Your task to perform on an android device: find photos in the google photos app Image 0: 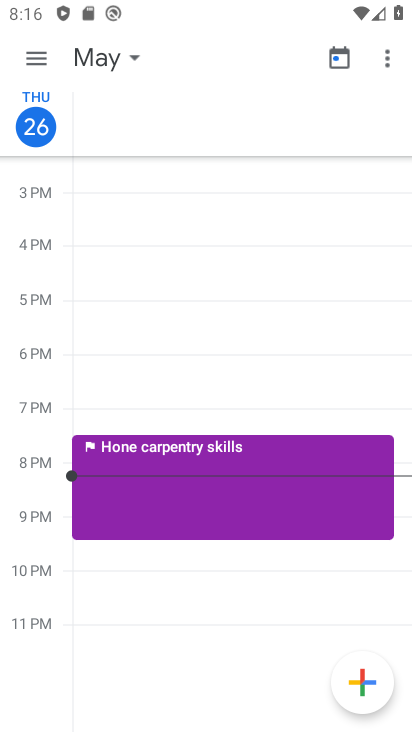
Step 0: press home button
Your task to perform on an android device: find photos in the google photos app Image 1: 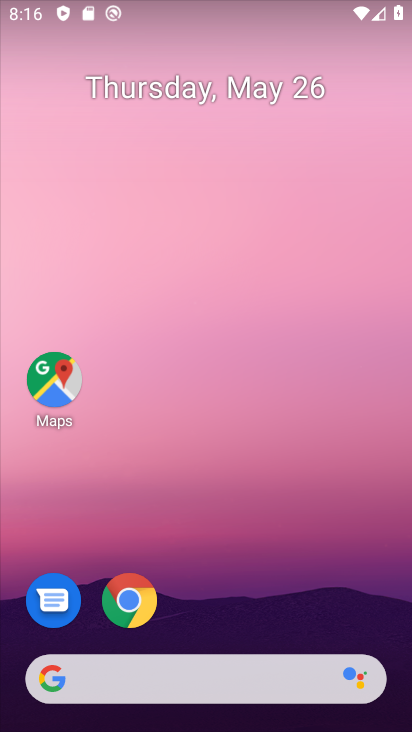
Step 1: drag from (202, 612) to (238, 31)
Your task to perform on an android device: find photos in the google photos app Image 2: 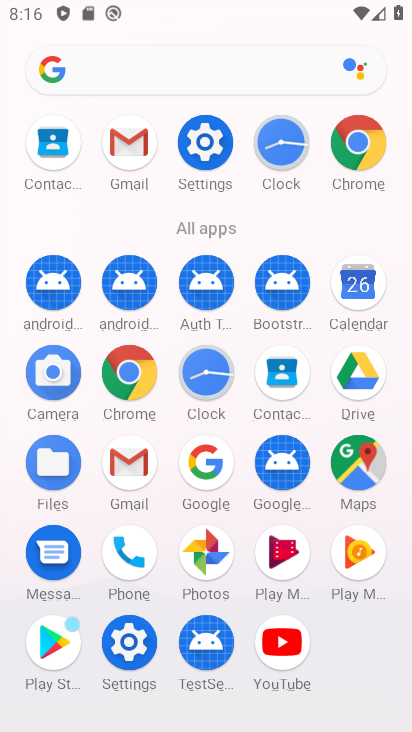
Step 2: click (221, 530)
Your task to perform on an android device: find photos in the google photos app Image 3: 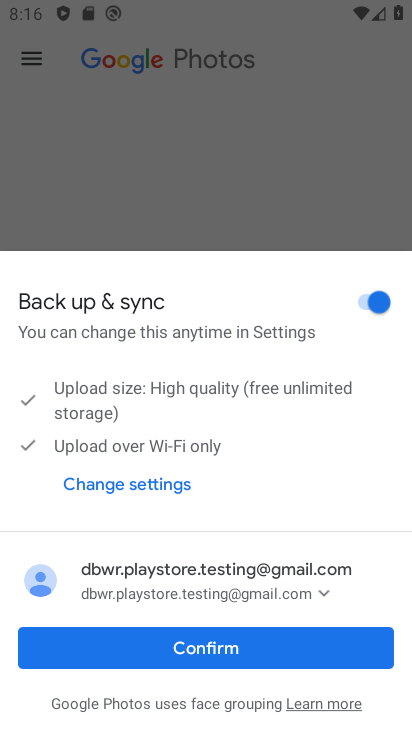
Step 3: click (177, 670)
Your task to perform on an android device: find photos in the google photos app Image 4: 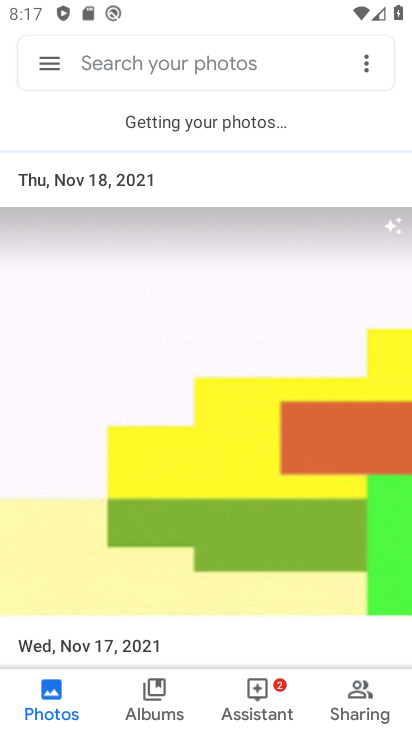
Step 4: task complete